Your task to perform on an android device: Open accessibility settings Image 0: 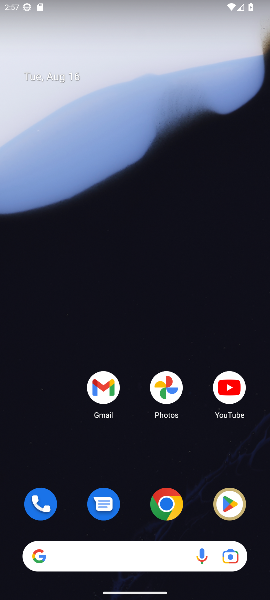
Step 0: drag from (55, 292) to (55, 247)
Your task to perform on an android device: Open accessibility settings Image 1: 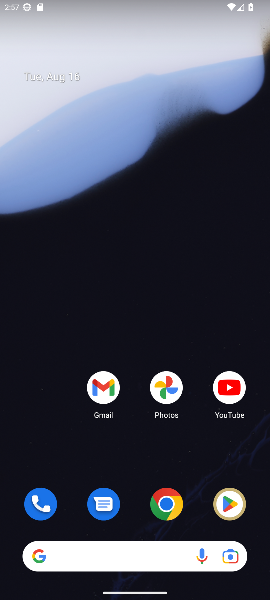
Step 1: drag from (145, 537) to (45, 136)
Your task to perform on an android device: Open accessibility settings Image 2: 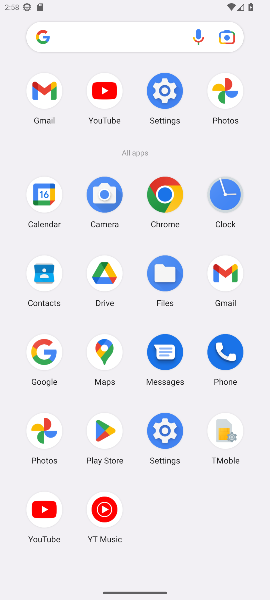
Step 2: click (155, 420)
Your task to perform on an android device: Open accessibility settings Image 3: 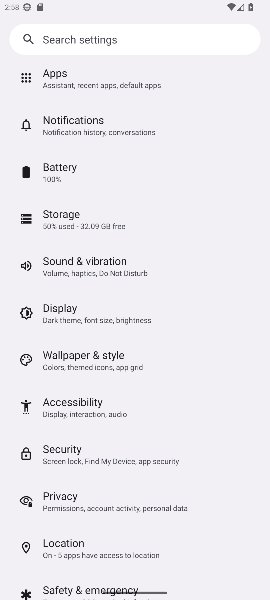
Step 3: click (42, 395)
Your task to perform on an android device: Open accessibility settings Image 4: 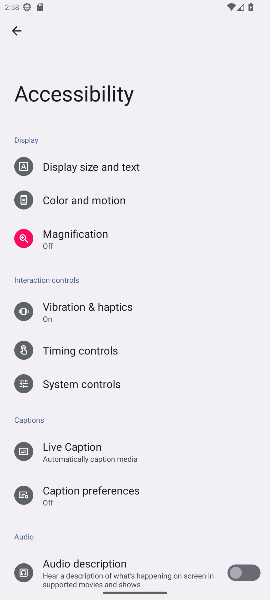
Step 4: task complete